Your task to perform on an android device: toggle airplane mode Image 0: 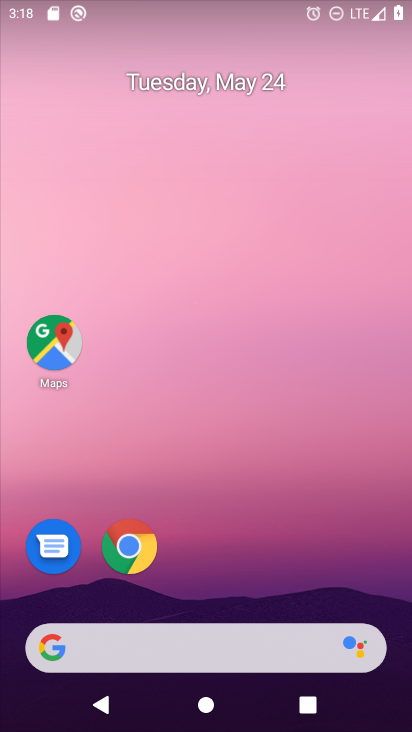
Step 0: drag from (280, 5) to (281, 616)
Your task to perform on an android device: toggle airplane mode Image 1: 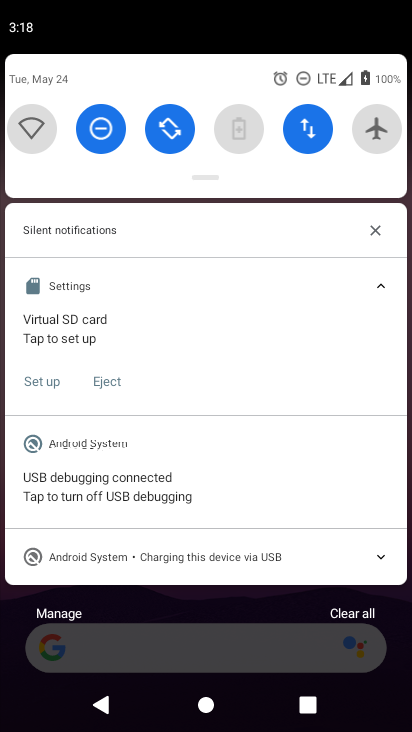
Step 1: drag from (336, 165) to (348, 517)
Your task to perform on an android device: toggle airplane mode Image 2: 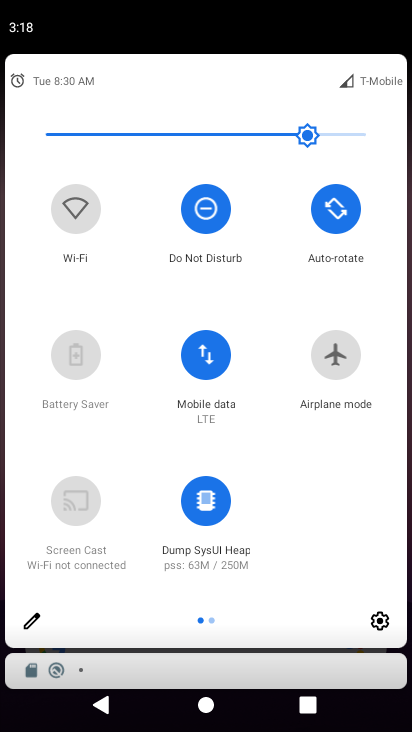
Step 2: click (346, 355)
Your task to perform on an android device: toggle airplane mode Image 3: 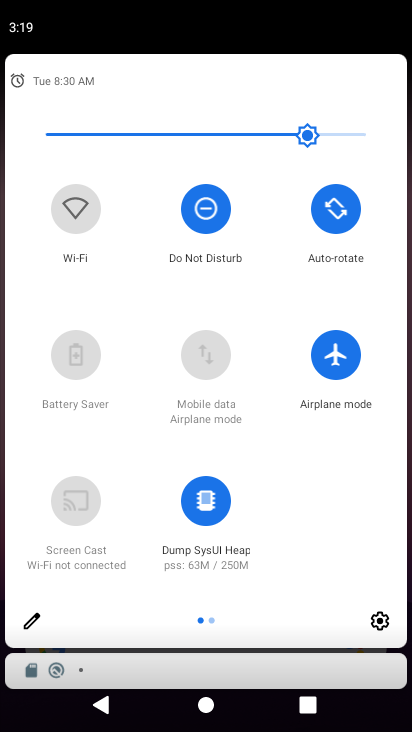
Step 3: task complete